Your task to perform on an android device: Open Google Maps Image 0: 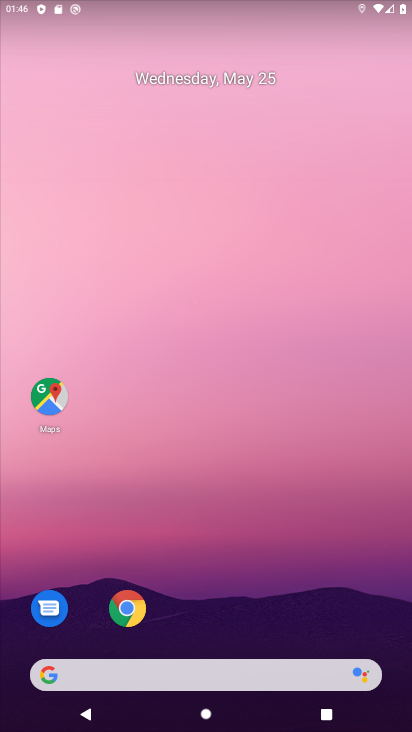
Step 0: click (54, 402)
Your task to perform on an android device: Open Google Maps Image 1: 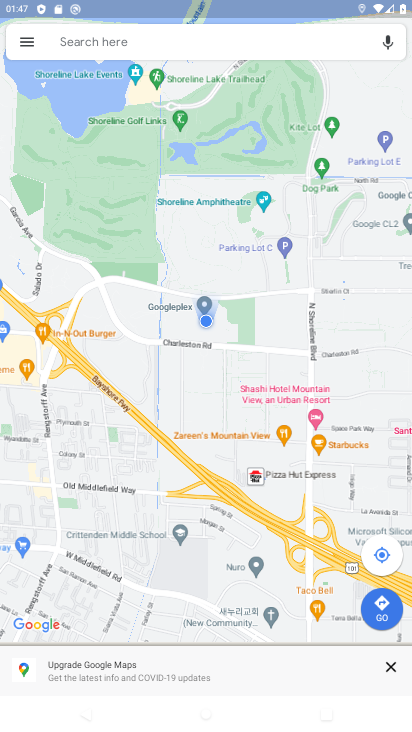
Step 1: task complete